Your task to perform on an android device: change the upload size in google photos Image 0: 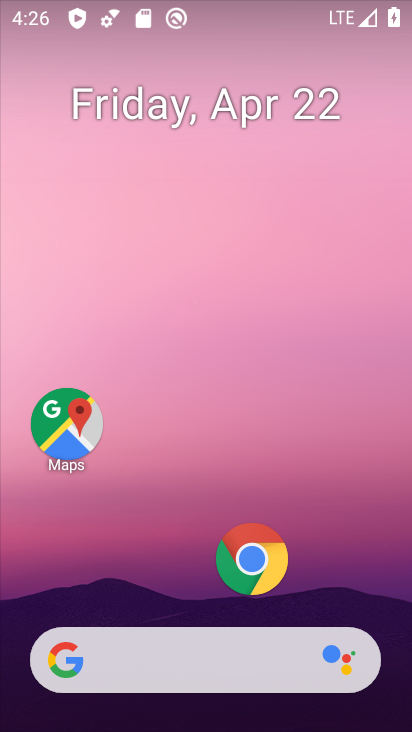
Step 0: drag from (150, 575) to (155, 348)
Your task to perform on an android device: change the upload size in google photos Image 1: 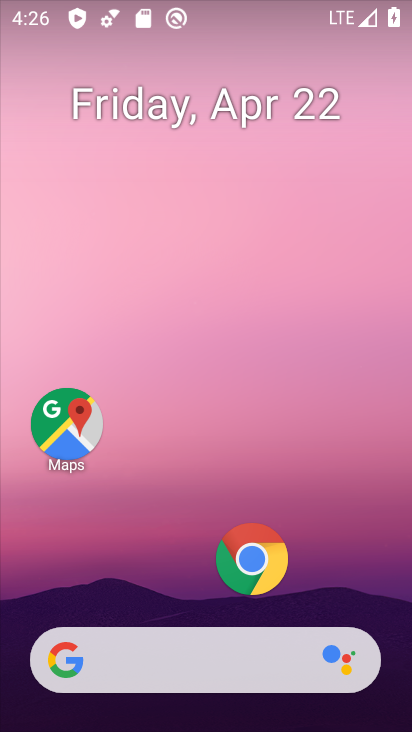
Step 1: drag from (133, 598) to (268, 34)
Your task to perform on an android device: change the upload size in google photos Image 2: 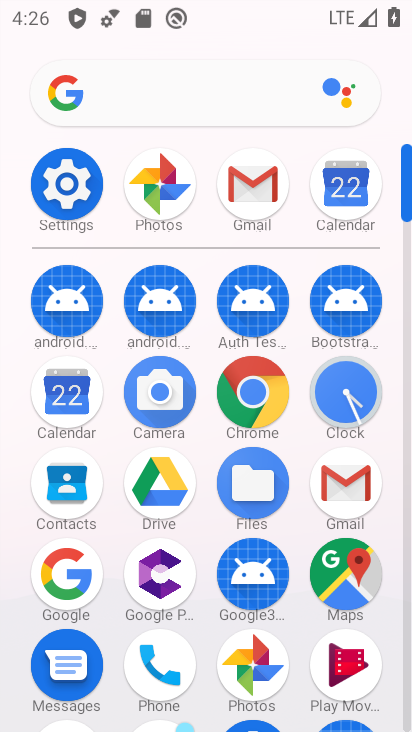
Step 2: click (243, 654)
Your task to perform on an android device: change the upload size in google photos Image 3: 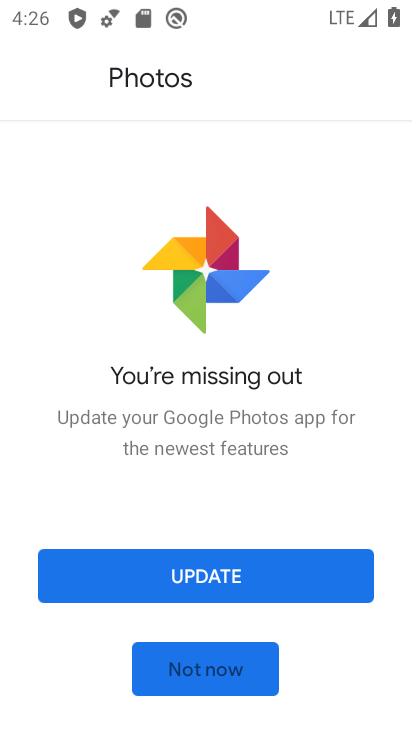
Step 3: click (174, 671)
Your task to perform on an android device: change the upload size in google photos Image 4: 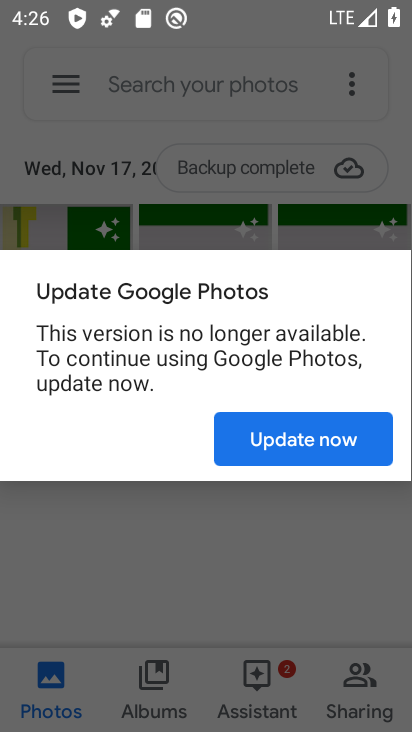
Step 4: click (255, 433)
Your task to perform on an android device: change the upload size in google photos Image 5: 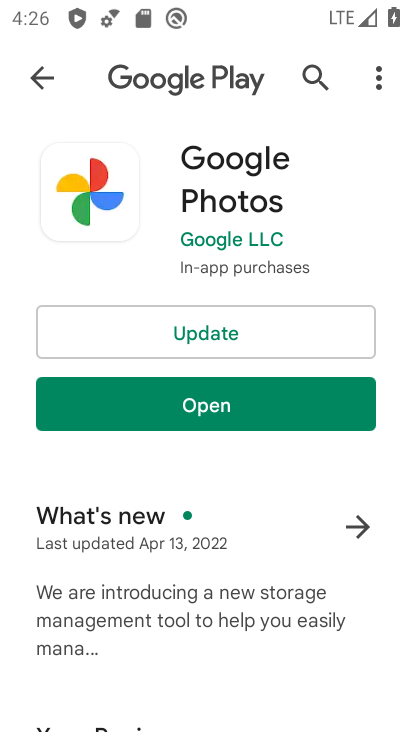
Step 5: click (217, 409)
Your task to perform on an android device: change the upload size in google photos Image 6: 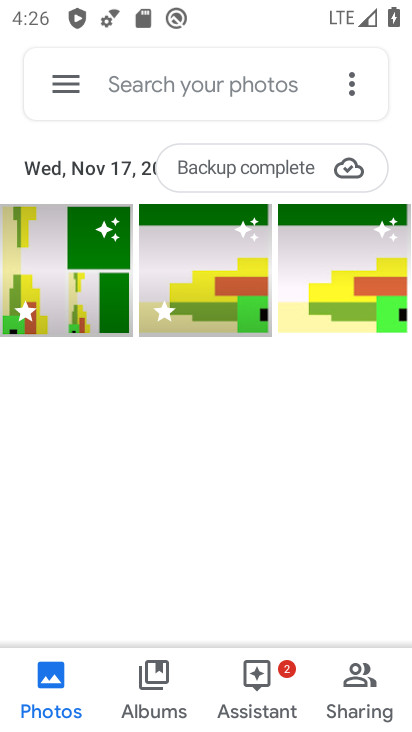
Step 6: click (79, 91)
Your task to perform on an android device: change the upload size in google photos Image 7: 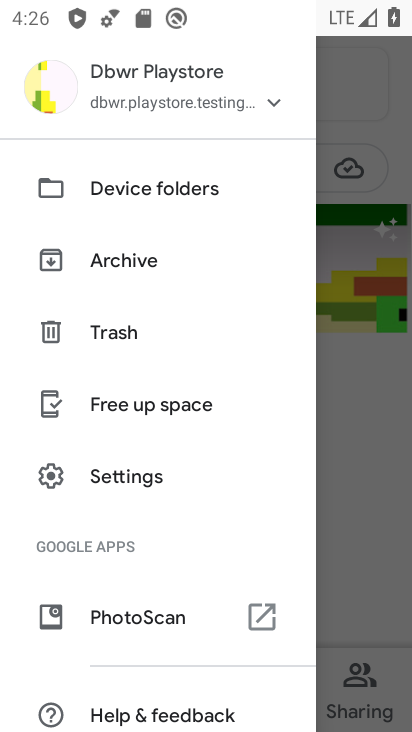
Step 7: click (110, 467)
Your task to perform on an android device: change the upload size in google photos Image 8: 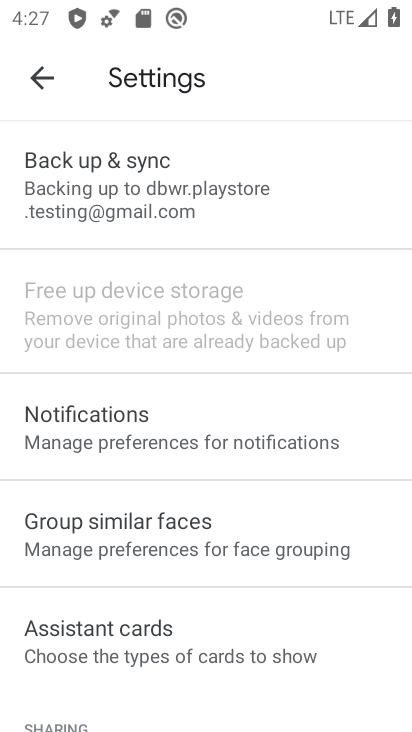
Step 8: click (133, 207)
Your task to perform on an android device: change the upload size in google photos Image 9: 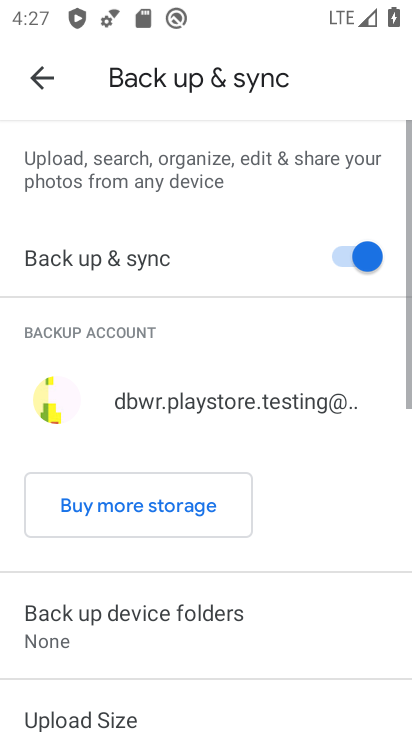
Step 9: drag from (198, 570) to (275, 173)
Your task to perform on an android device: change the upload size in google photos Image 10: 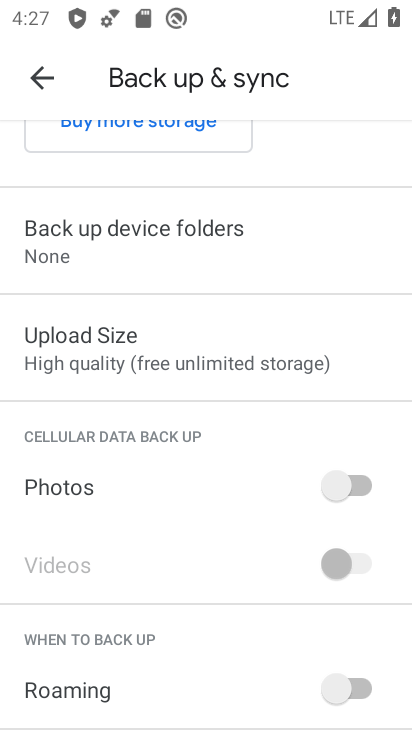
Step 10: click (157, 375)
Your task to perform on an android device: change the upload size in google photos Image 11: 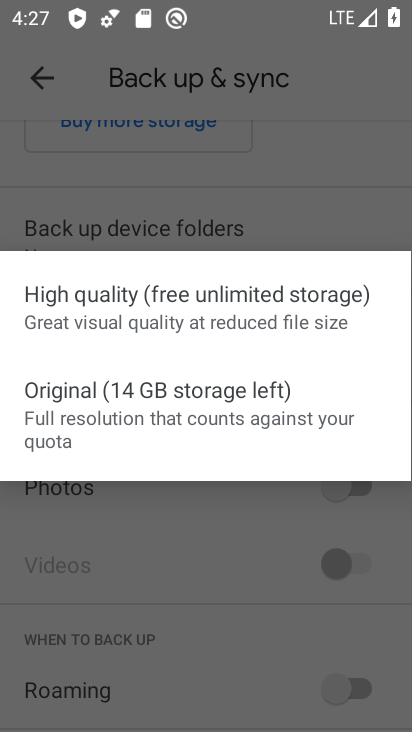
Step 11: click (112, 407)
Your task to perform on an android device: change the upload size in google photos Image 12: 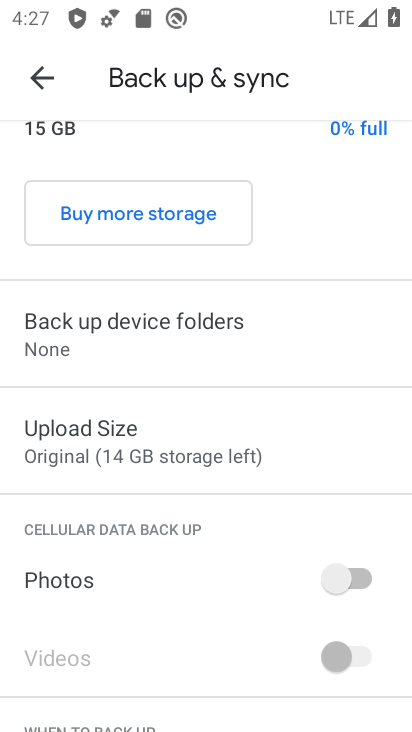
Step 12: task complete